Your task to perform on an android device: Open Yahoo.com Image 0: 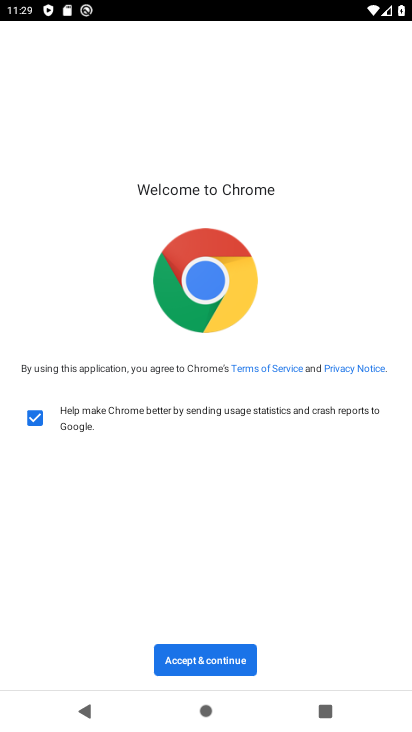
Step 0: press home button
Your task to perform on an android device: Open Yahoo.com Image 1: 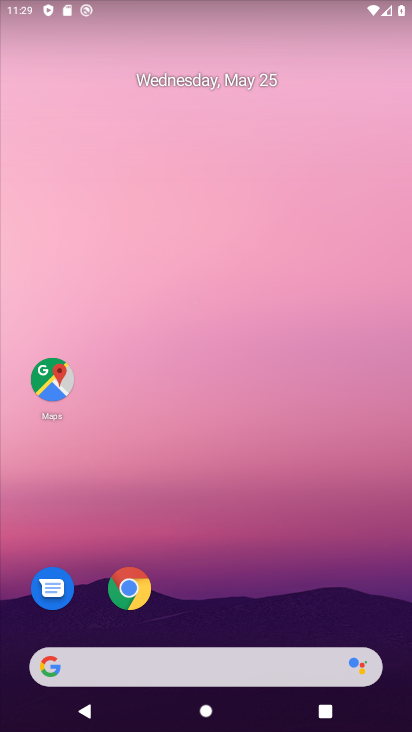
Step 1: click (126, 591)
Your task to perform on an android device: Open Yahoo.com Image 2: 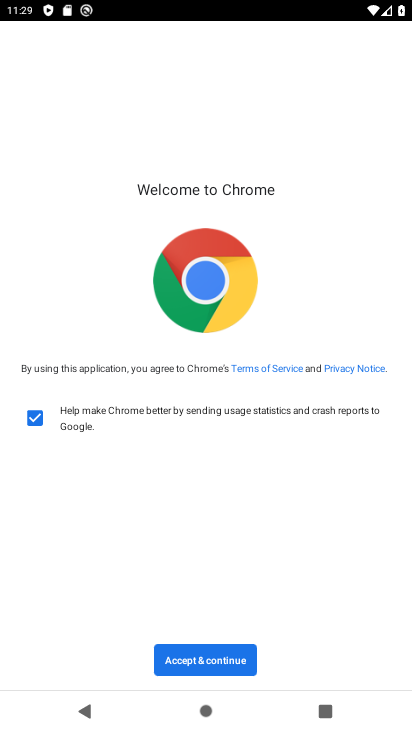
Step 2: click (209, 663)
Your task to perform on an android device: Open Yahoo.com Image 3: 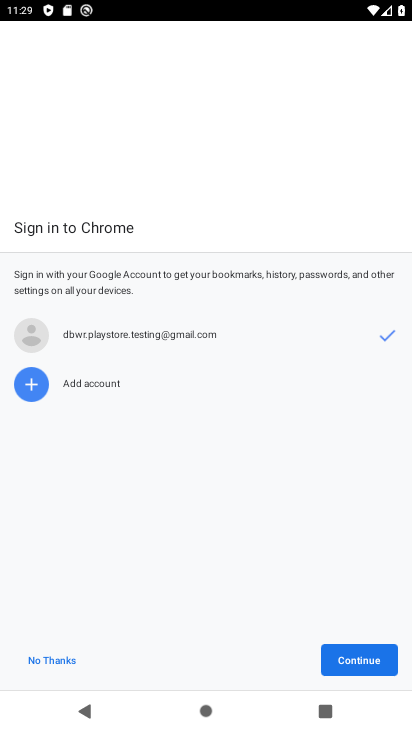
Step 3: click (374, 657)
Your task to perform on an android device: Open Yahoo.com Image 4: 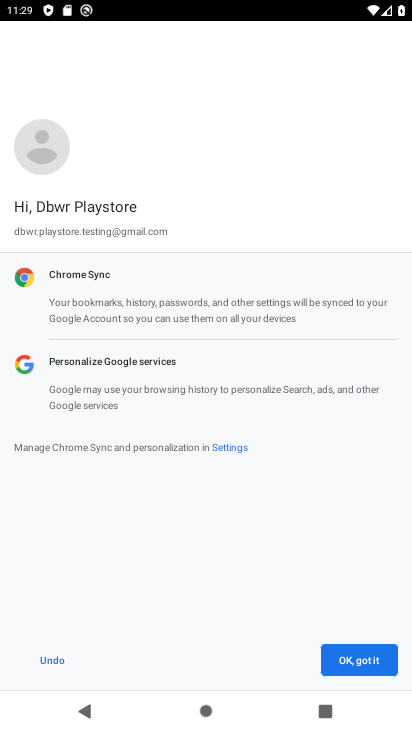
Step 4: click (372, 657)
Your task to perform on an android device: Open Yahoo.com Image 5: 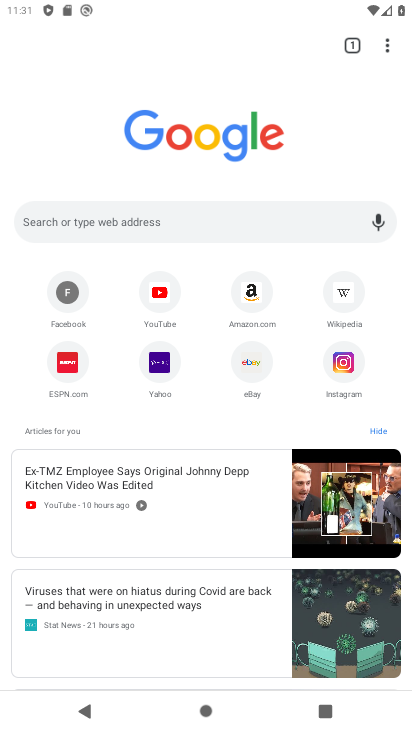
Step 5: click (121, 218)
Your task to perform on an android device: Open Yahoo.com Image 6: 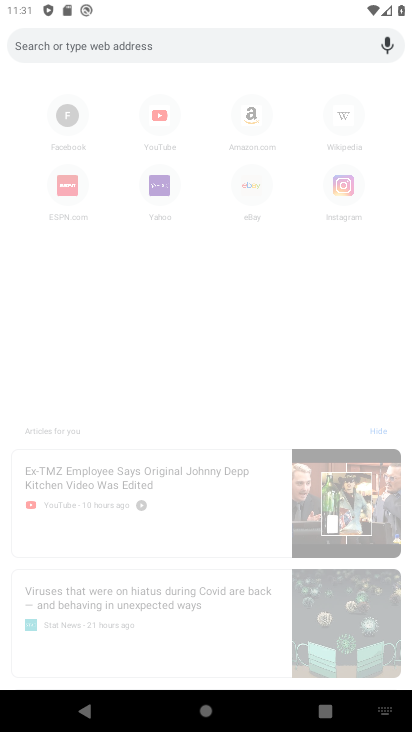
Step 6: type "Yahoo.com"
Your task to perform on an android device: Open Yahoo.com Image 7: 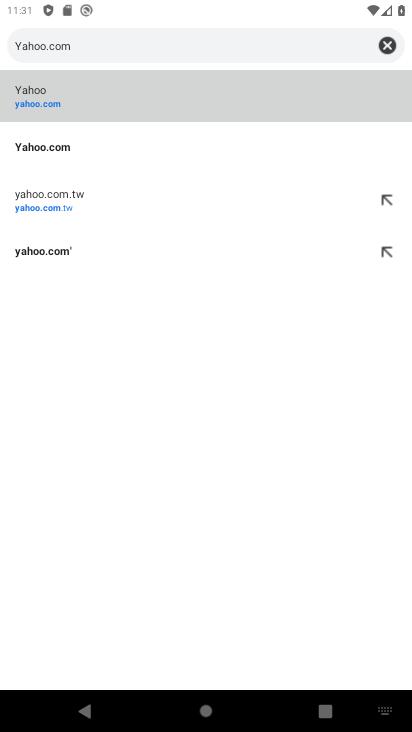
Step 7: drag from (58, 149) to (43, 114)
Your task to perform on an android device: Open Yahoo.com Image 8: 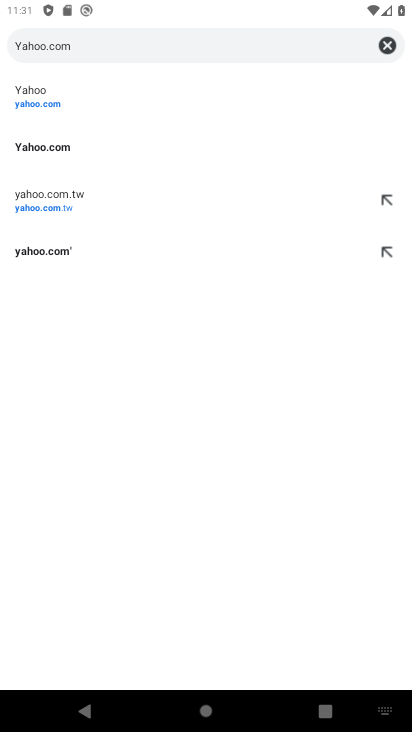
Step 8: click (25, 94)
Your task to perform on an android device: Open Yahoo.com Image 9: 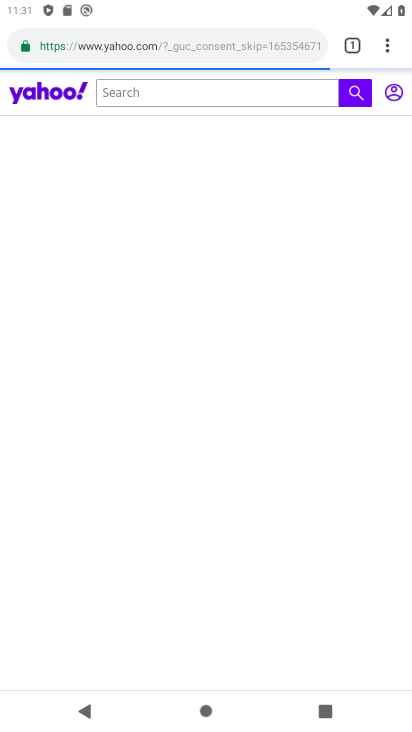
Step 9: task complete